Your task to perform on an android device: Search for "razer thresher" on amazon.com, select the first entry, add it to the cart, then select checkout. Image 0: 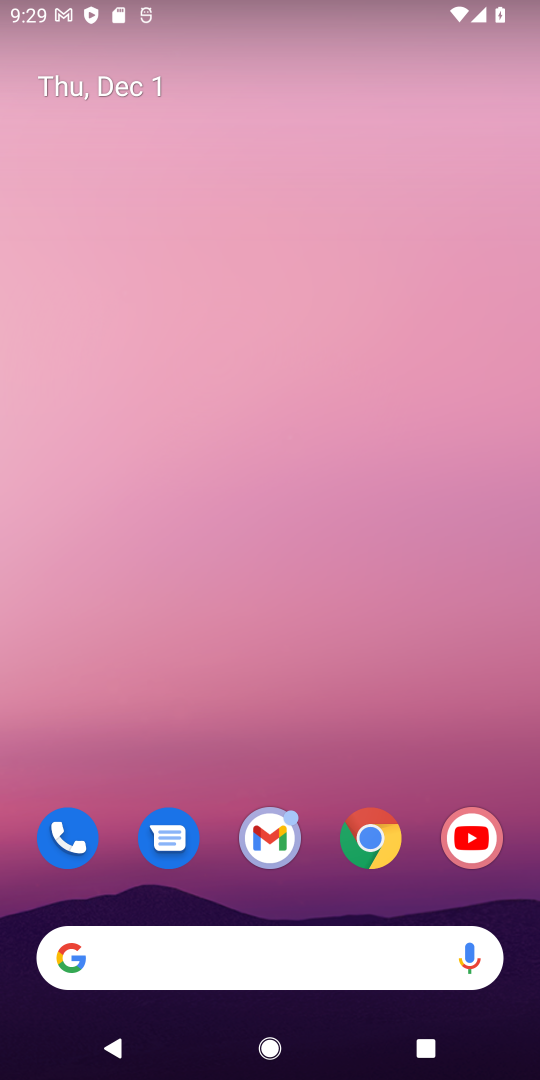
Step 0: drag from (224, 935) to (242, 343)
Your task to perform on an android device: Search for "razer thresher" on amazon.com, select the first entry, add it to the cart, then select checkout. Image 1: 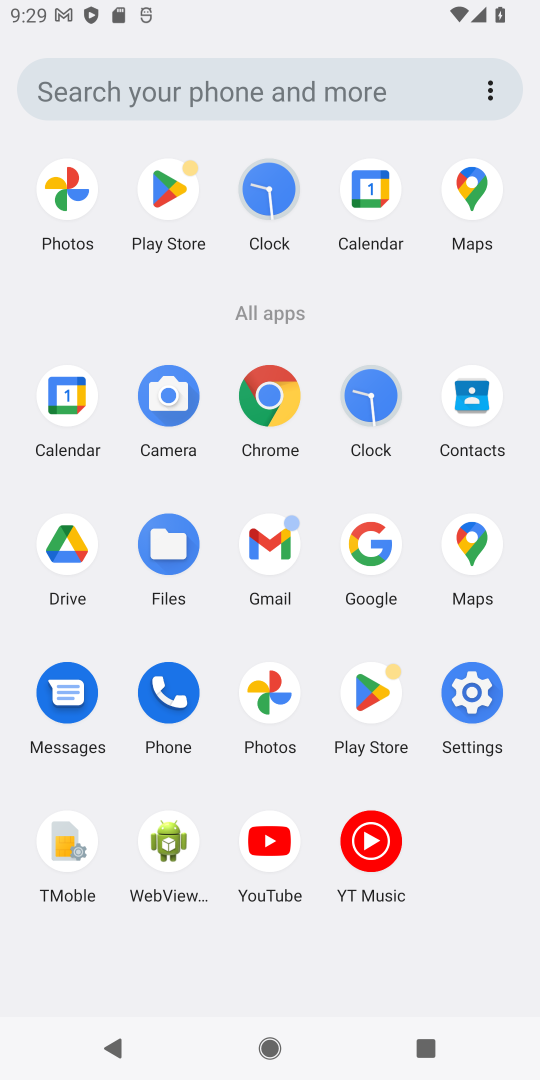
Step 1: click (378, 543)
Your task to perform on an android device: Search for "razer thresher" on amazon.com, select the first entry, add it to the cart, then select checkout. Image 2: 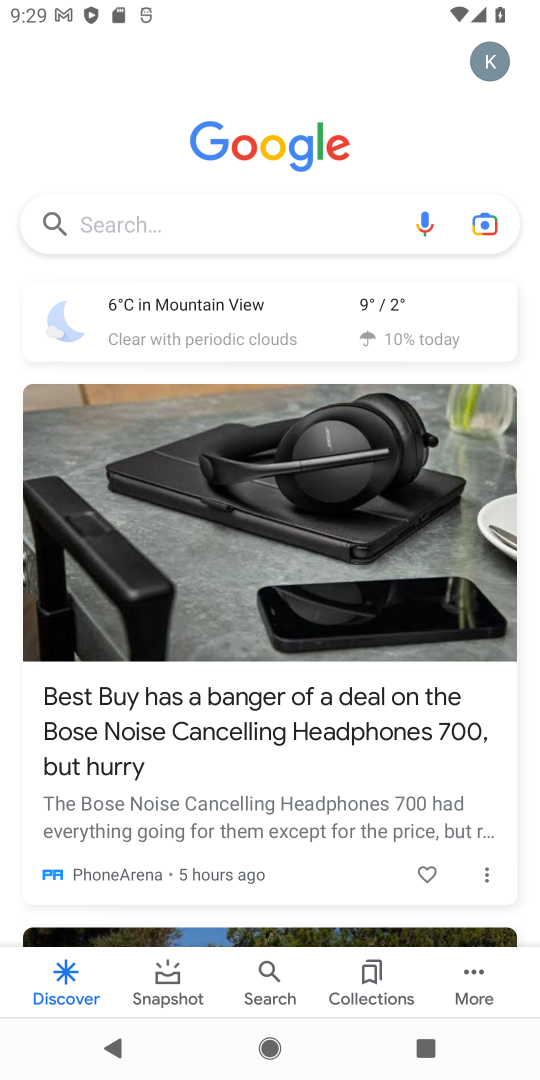
Step 2: click (153, 221)
Your task to perform on an android device: Search for "razer thresher" on amazon.com, select the first entry, add it to the cart, then select checkout. Image 3: 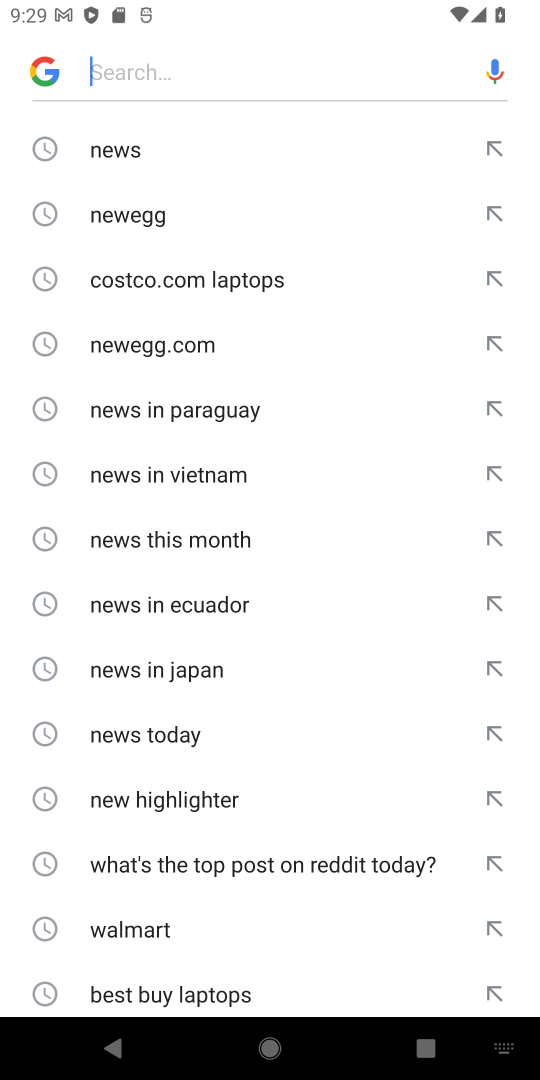
Step 3: drag from (182, 953) to (267, 269)
Your task to perform on an android device: Search for "razer thresher" on amazon.com, select the first entry, add it to the cart, then select checkout. Image 4: 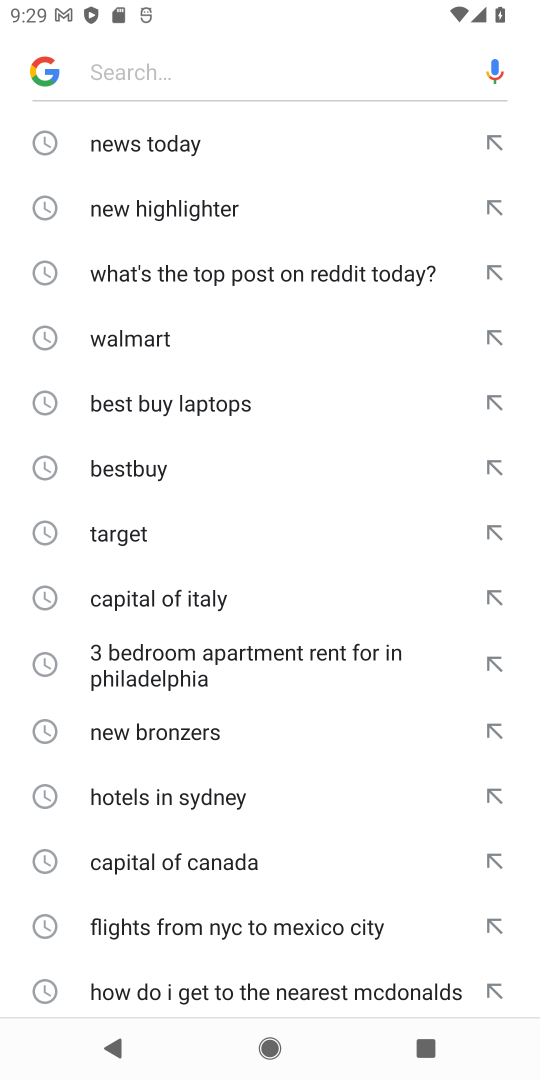
Step 4: drag from (209, 879) to (204, 507)
Your task to perform on an android device: Search for "razer thresher" on amazon.com, select the first entry, add it to the cart, then select checkout. Image 5: 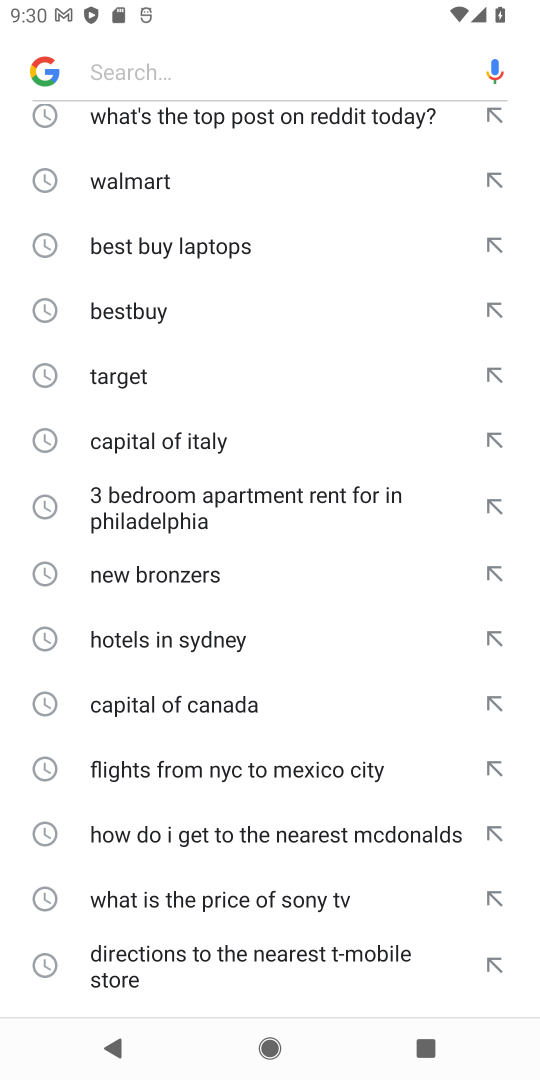
Step 5: type "amazon"
Your task to perform on an android device: Search for "razer thresher" on amazon.com, select the first entry, add it to the cart, then select checkout. Image 6: 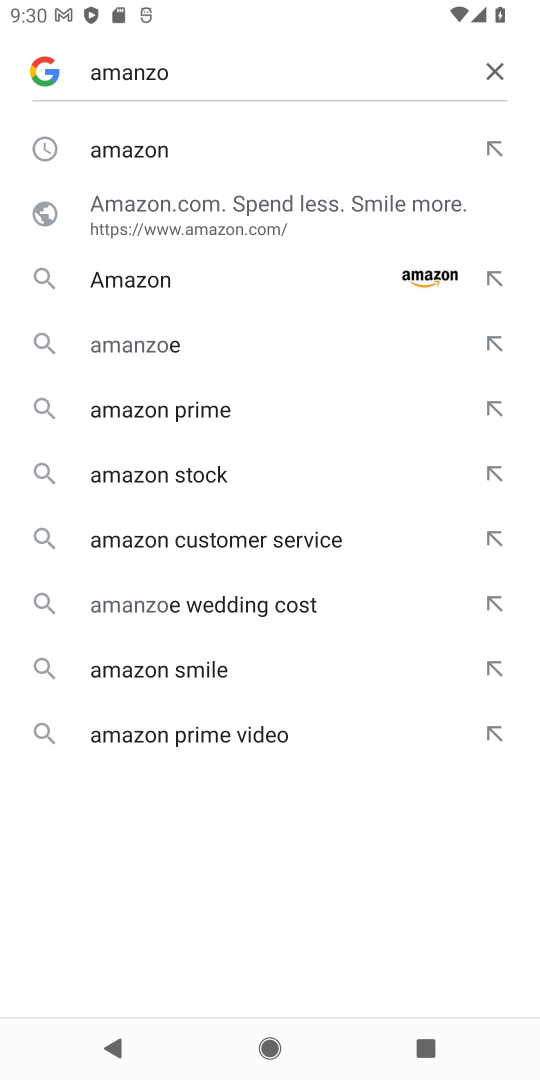
Step 6: click (117, 280)
Your task to perform on an android device: Search for "razer thresher" on amazon.com, select the first entry, add it to the cart, then select checkout. Image 7: 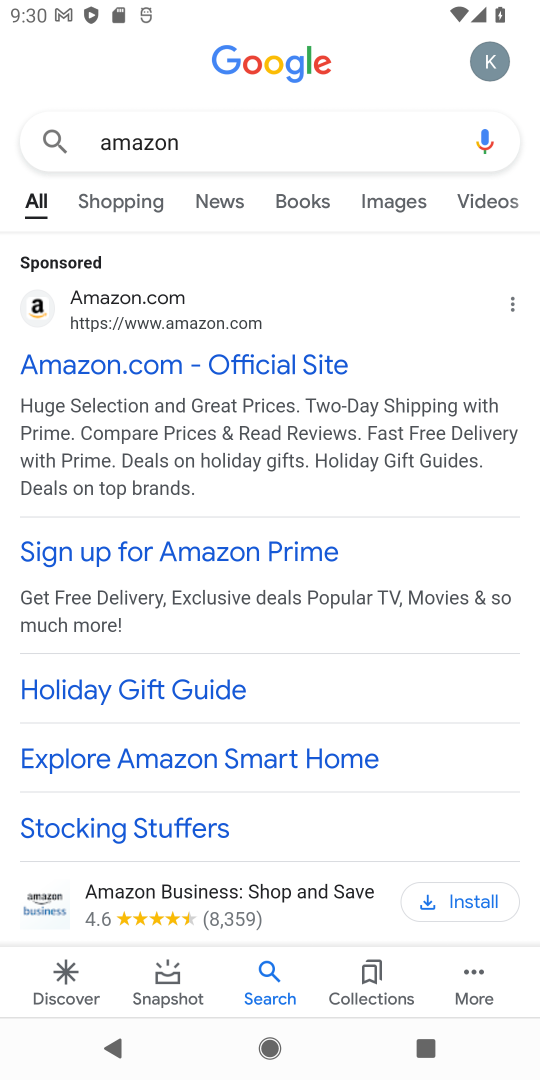
Step 7: click (141, 361)
Your task to perform on an android device: Search for "razer thresher" on amazon.com, select the first entry, add it to the cart, then select checkout. Image 8: 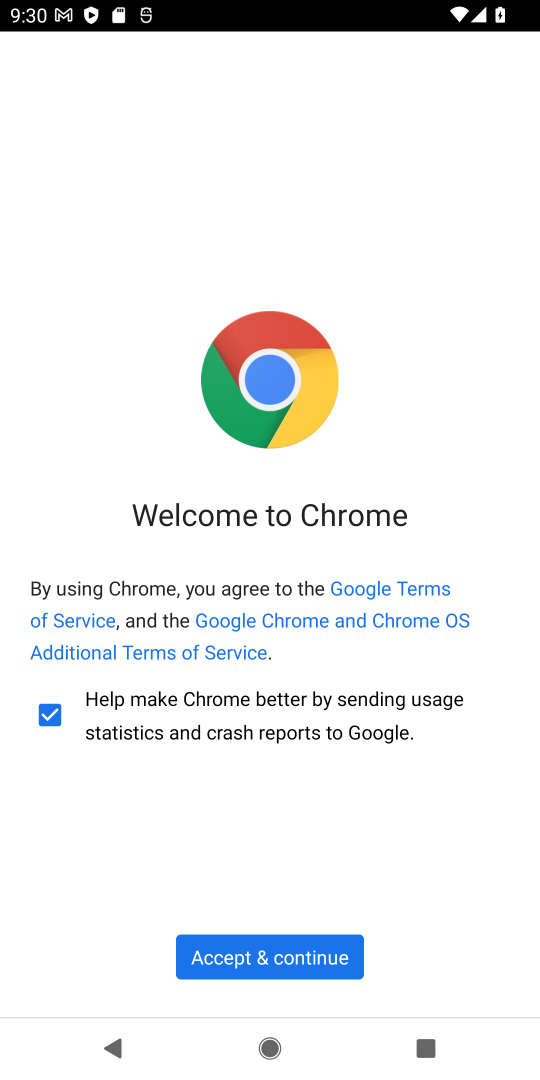
Step 8: click (296, 952)
Your task to perform on an android device: Search for "razer thresher" on amazon.com, select the first entry, add it to the cart, then select checkout. Image 9: 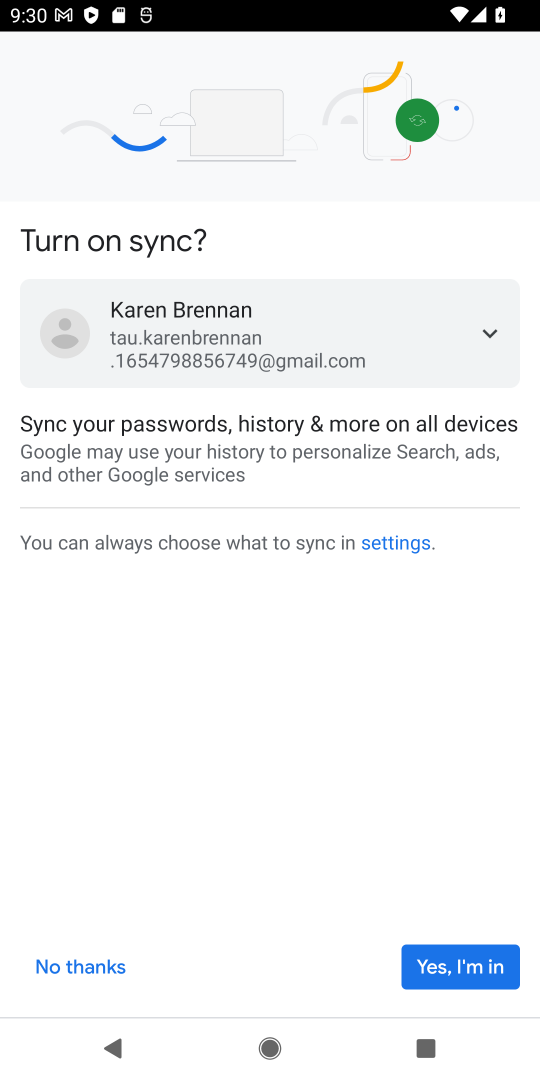
Step 9: click (437, 964)
Your task to perform on an android device: Search for "razer thresher" on amazon.com, select the first entry, add it to the cart, then select checkout. Image 10: 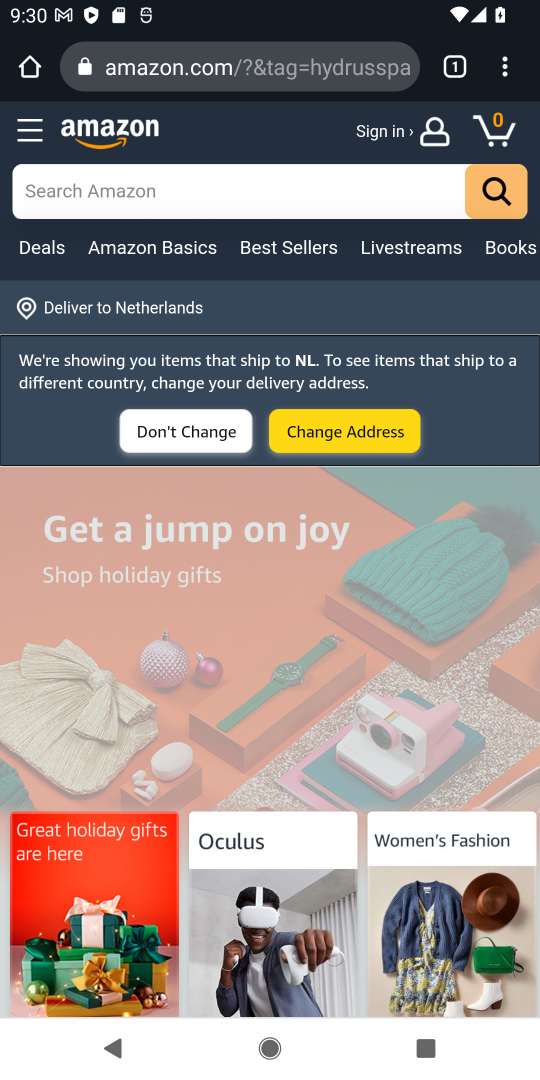
Step 10: click (173, 194)
Your task to perform on an android device: Search for "razer thresher" on amazon.com, select the first entry, add it to the cart, then select checkout. Image 11: 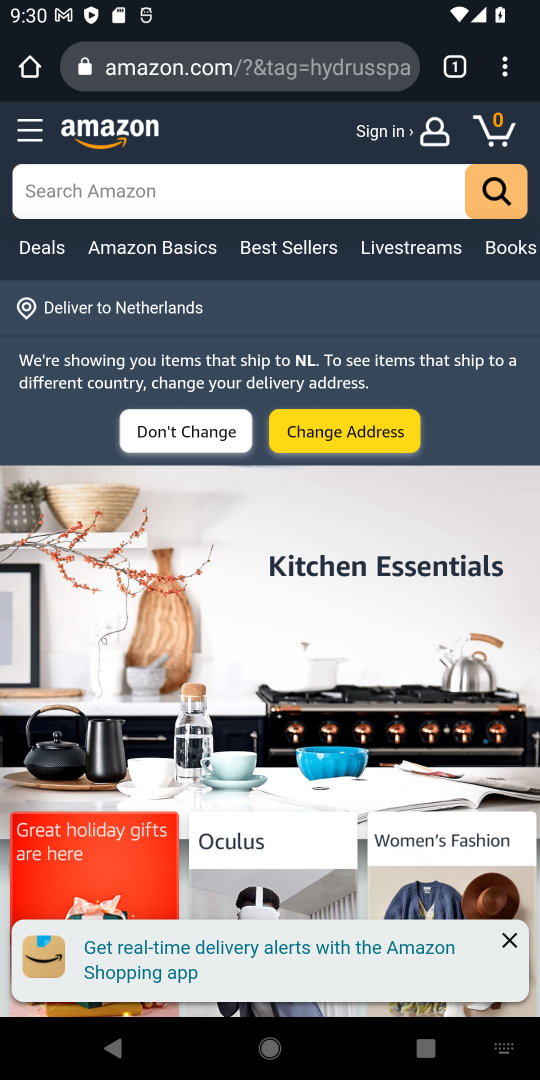
Step 11: type "razer thresher"
Your task to perform on an android device: Search for "razer thresher" on amazon.com, select the first entry, add it to the cart, then select checkout. Image 12: 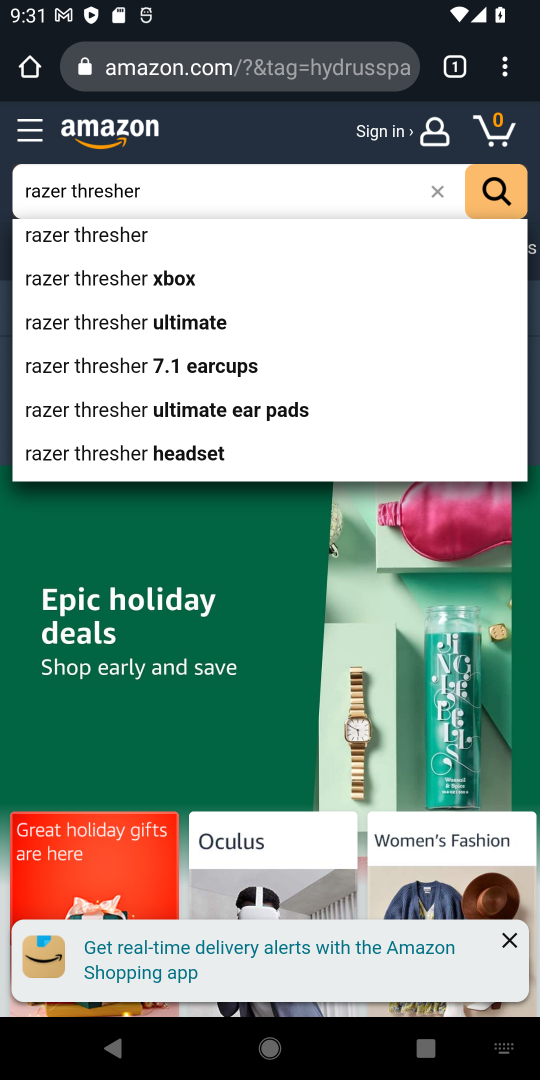
Step 12: click (123, 245)
Your task to perform on an android device: Search for "razer thresher" on amazon.com, select the first entry, add it to the cart, then select checkout. Image 13: 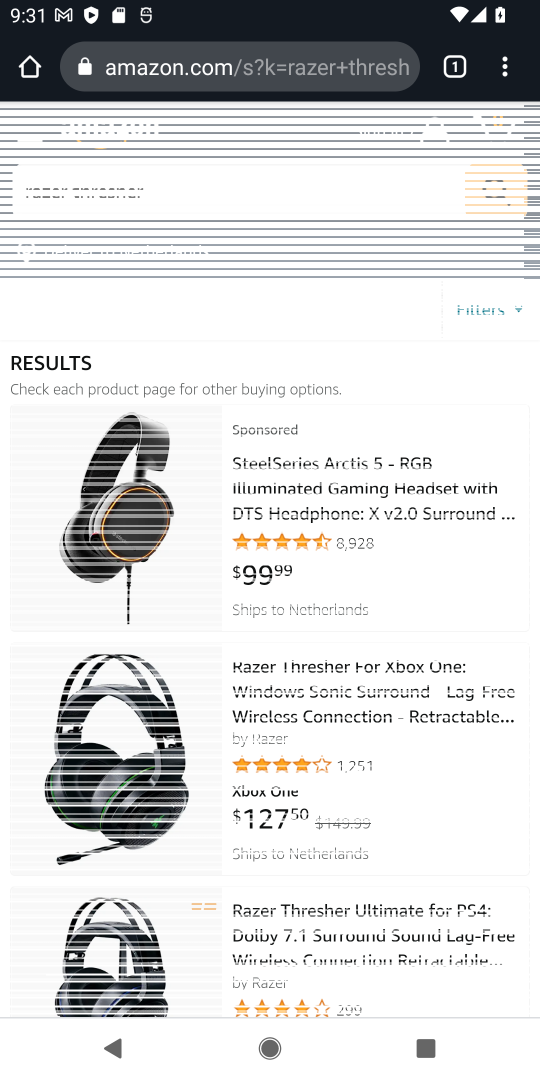
Step 13: click (301, 501)
Your task to perform on an android device: Search for "razer thresher" on amazon.com, select the first entry, add it to the cart, then select checkout. Image 14: 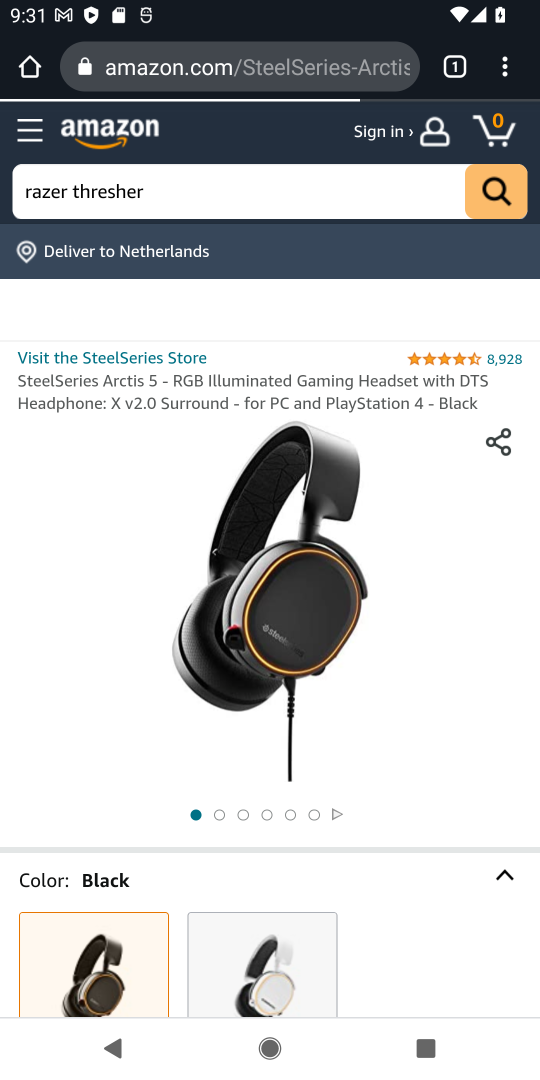
Step 14: drag from (315, 836) to (315, 397)
Your task to perform on an android device: Search for "razer thresher" on amazon.com, select the first entry, add it to the cart, then select checkout. Image 15: 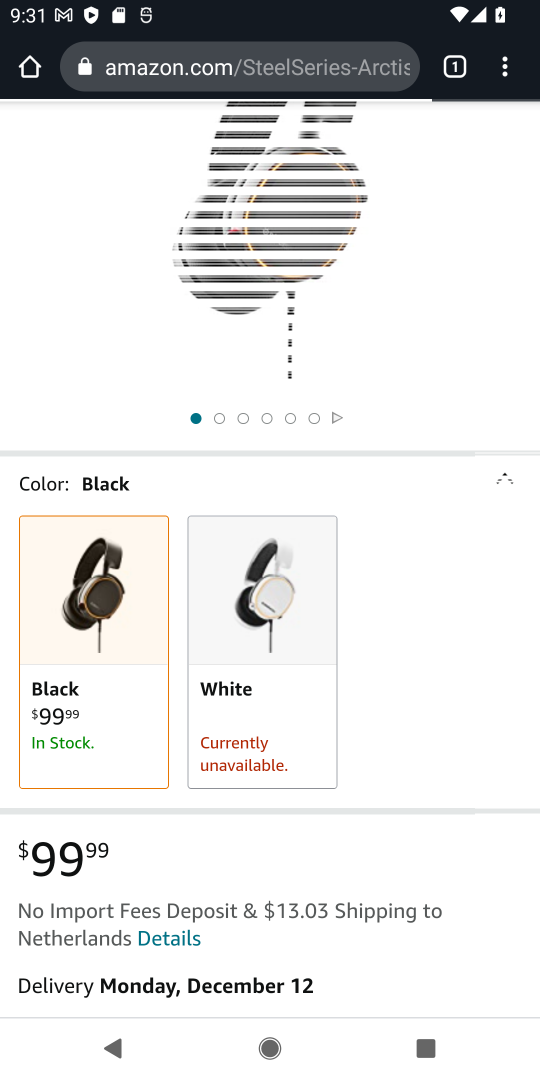
Step 15: drag from (273, 884) to (277, 482)
Your task to perform on an android device: Search for "razer thresher" on amazon.com, select the first entry, add it to the cart, then select checkout. Image 16: 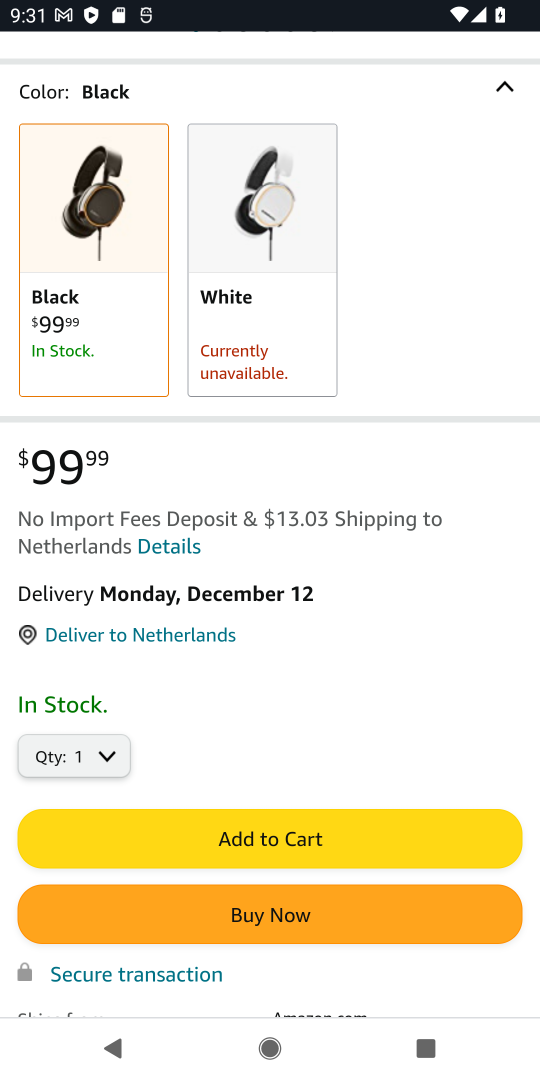
Step 16: click (234, 847)
Your task to perform on an android device: Search for "razer thresher" on amazon.com, select the first entry, add it to the cart, then select checkout. Image 17: 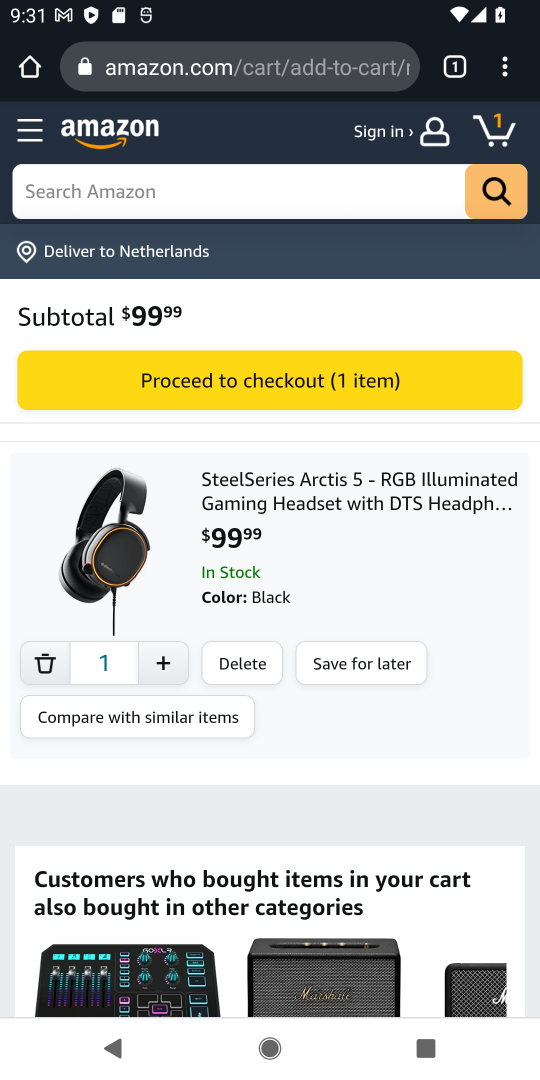
Step 17: click (491, 127)
Your task to perform on an android device: Search for "razer thresher" on amazon.com, select the first entry, add it to the cart, then select checkout. Image 18: 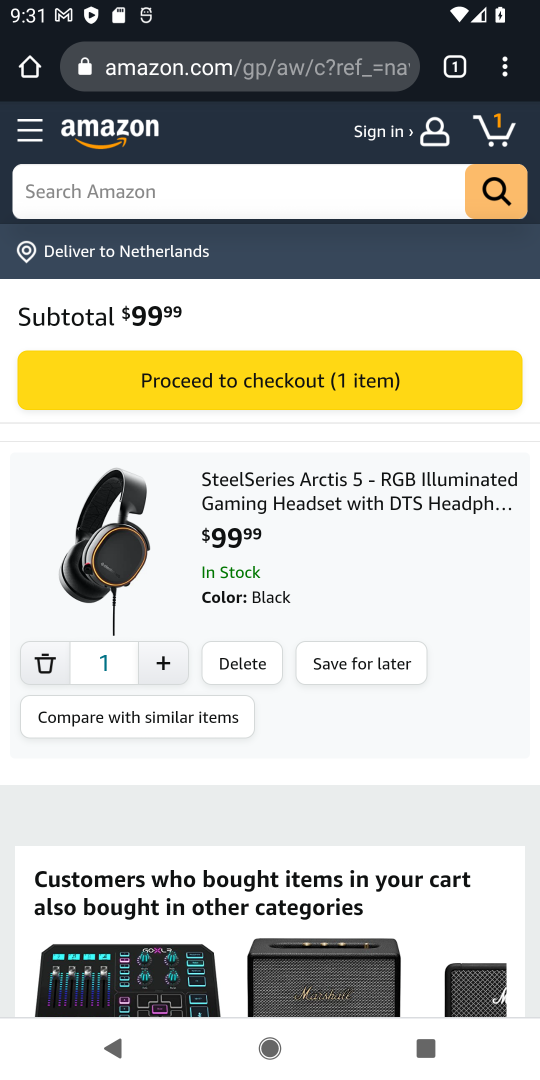
Step 18: click (506, 127)
Your task to perform on an android device: Search for "razer thresher" on amazon.com, select the first entry, add it to the cart, then select checkout. Image 19: 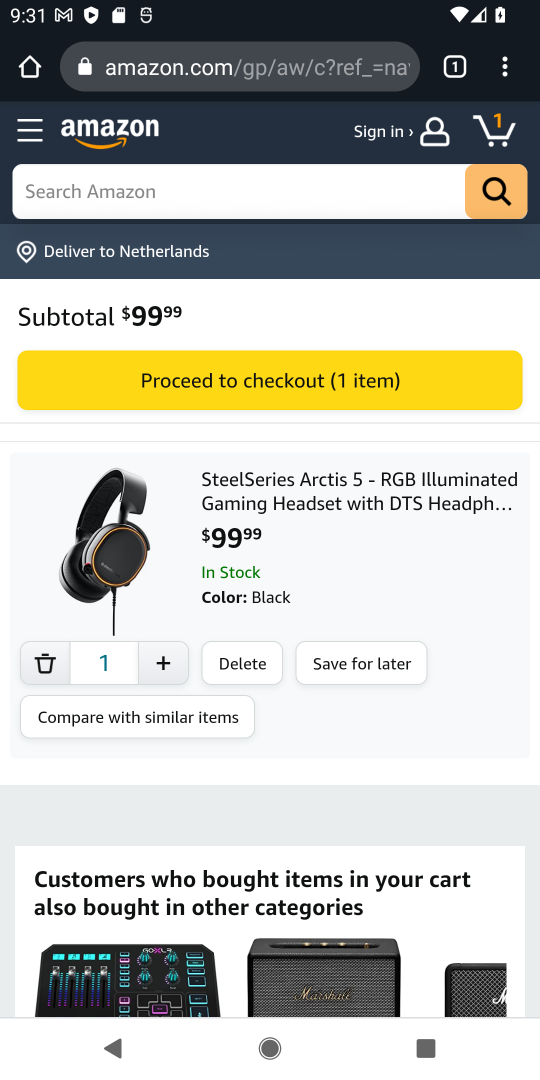
Step 19: task complete